Your task to perform on an android device: What's the weather going to be tomorrow? Image 0: 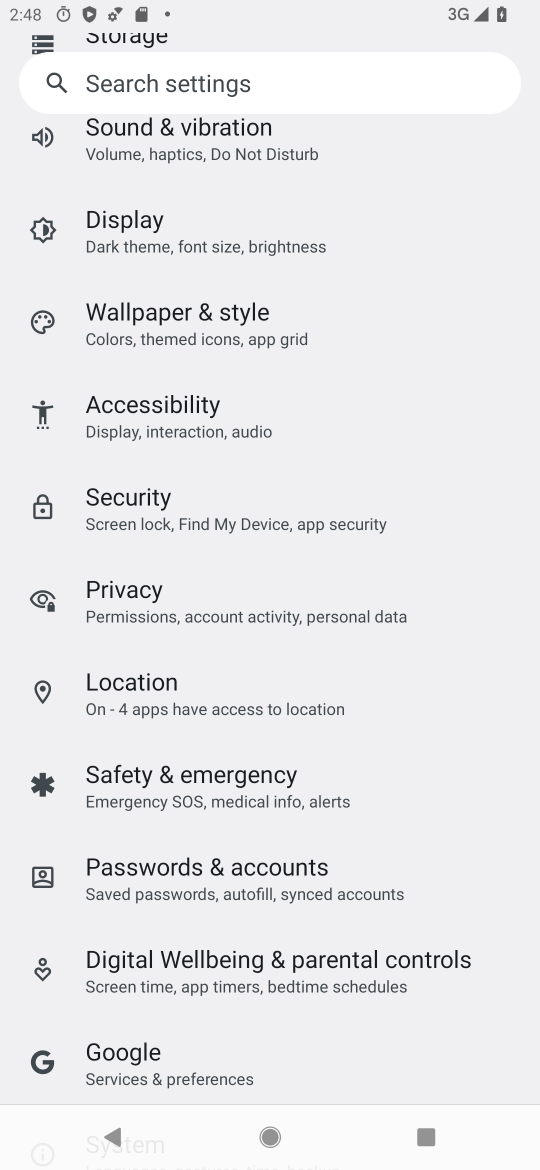
Step 0: press home button
Your task to perform on an android device: What's the weather going to be tomorrow? Image 1: 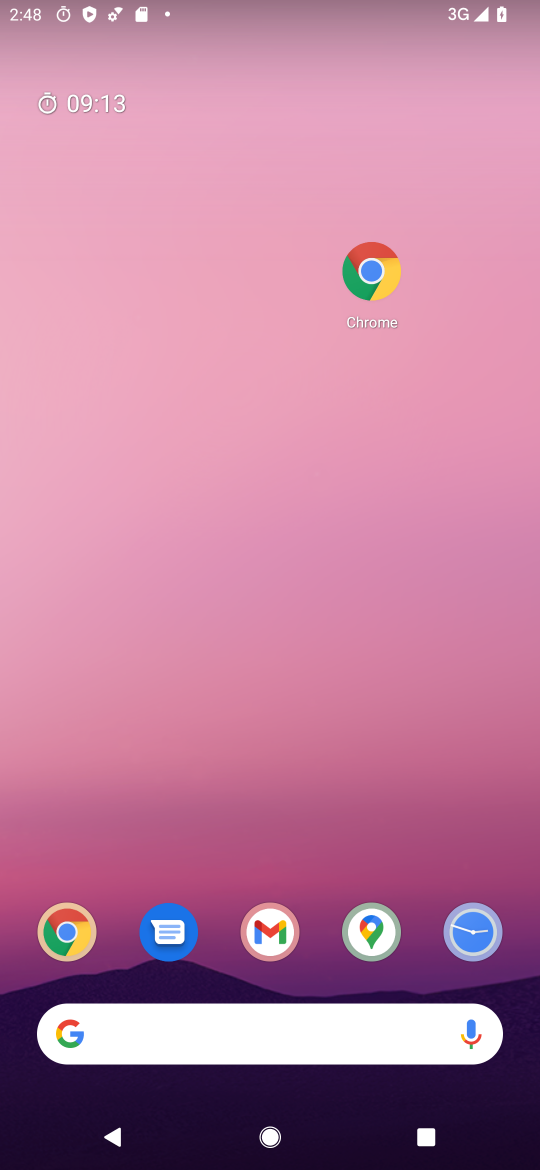
Step 1: drag from (325, 935) to (286, 28)
Your task to perform on an android device: What's the weather going to be tomorrow? Image 2: 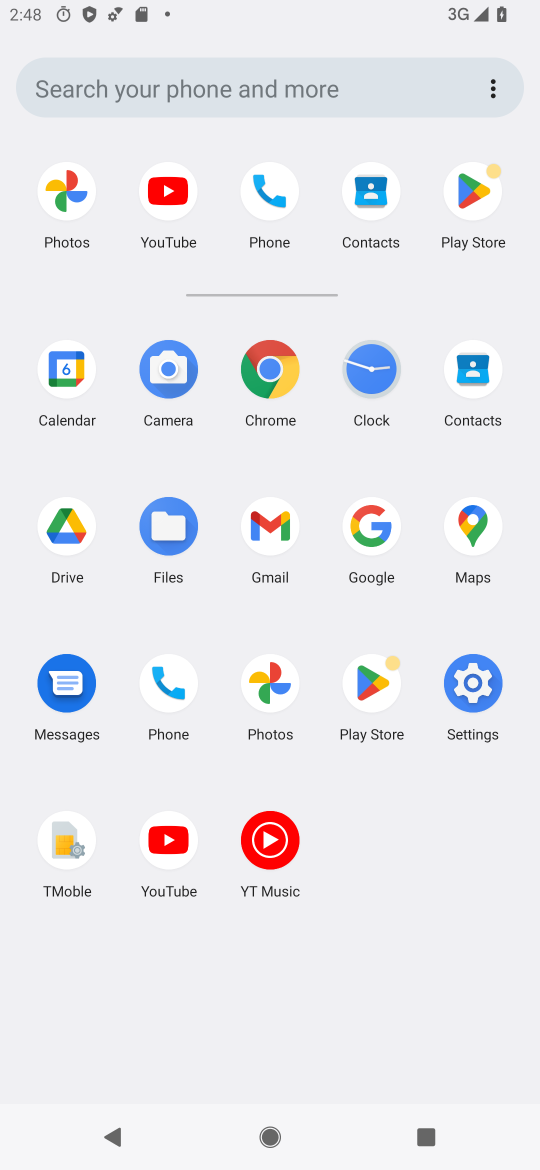
Step 2: click (274, 382)
Your task to perform on an android device: What's the weather going to be tomorrow? Image 3: 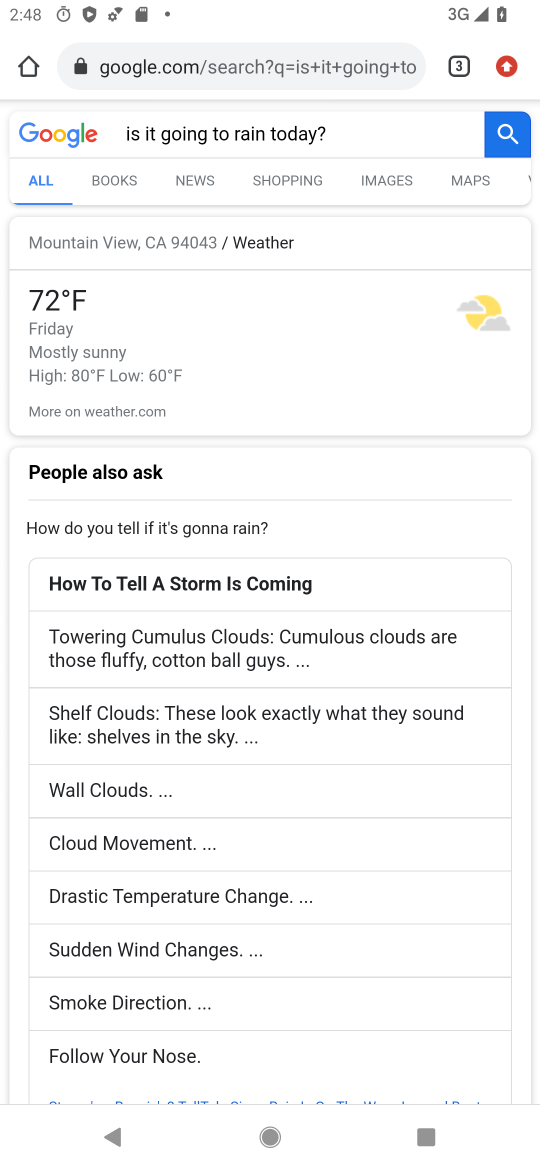
Step 3: click (168, 64)
Your task to perform on an android device: What's the weather going to be tomorrow? Image 4: 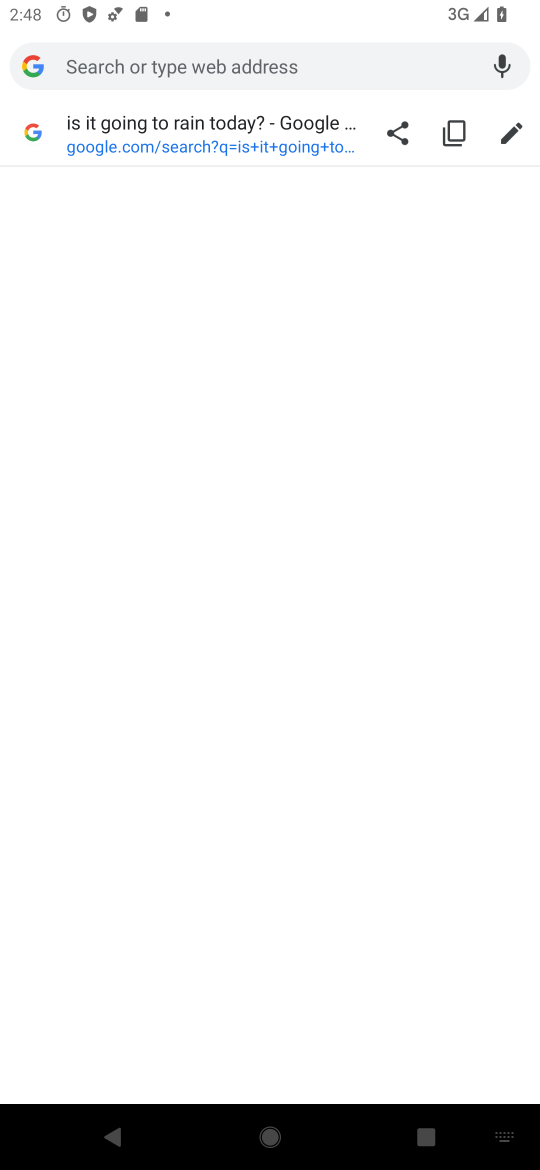
Step 4: type "What's the weather going to be tomorrow?"
Your task to perform on an android device: What's the weather going to be tomorrow? Image 5: 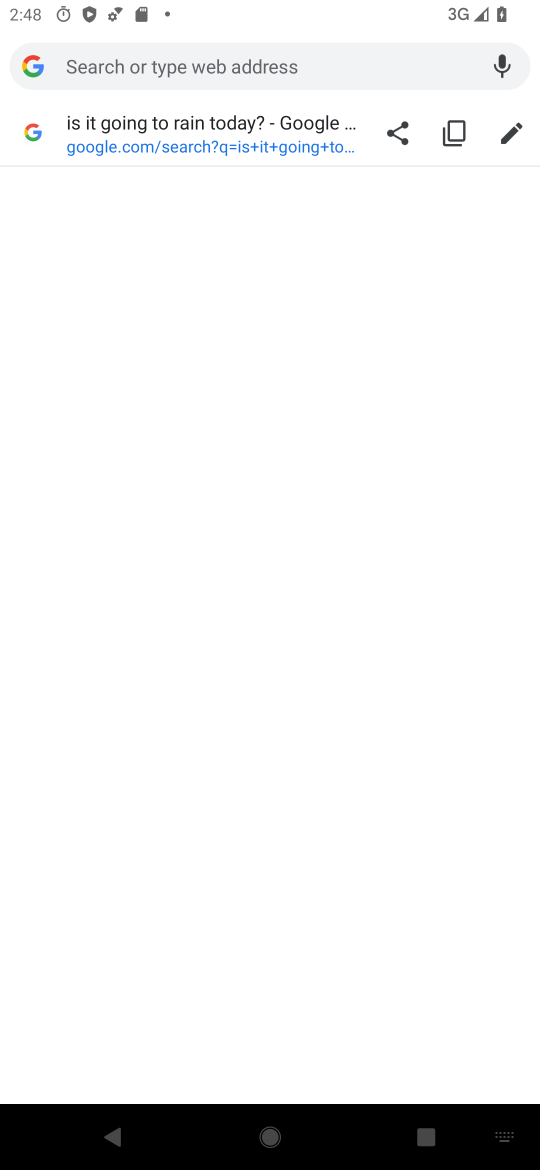
Step 5: click (140, 70)
Your task to perform on an android device: What's the weather going to be tomorrow? Image 6: 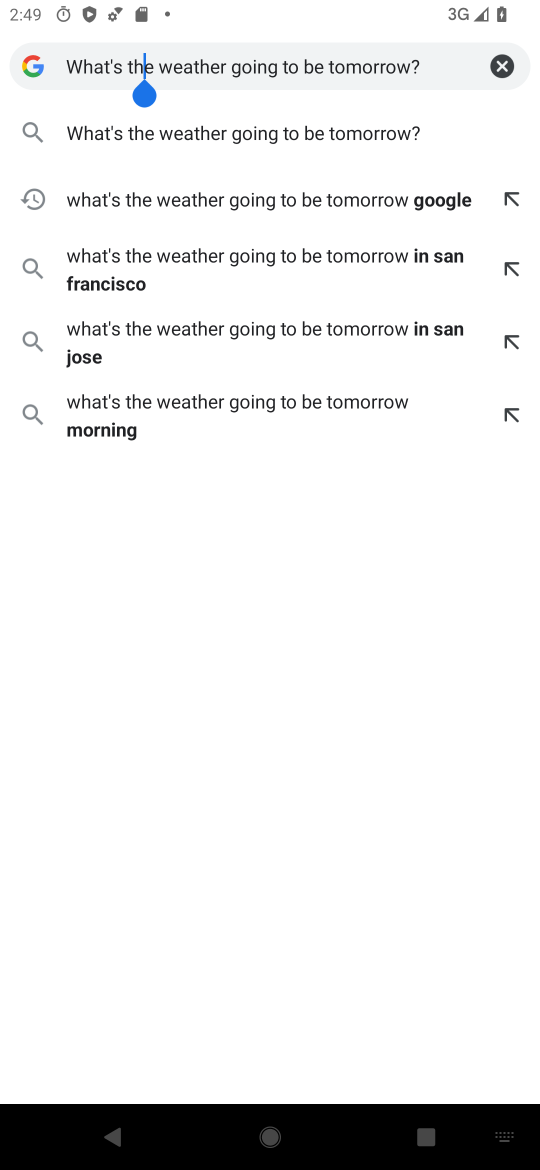
Step 6: click (143, 70)
Your task to perform on an android device: What's the weather going to be tomorrow? Image 7: 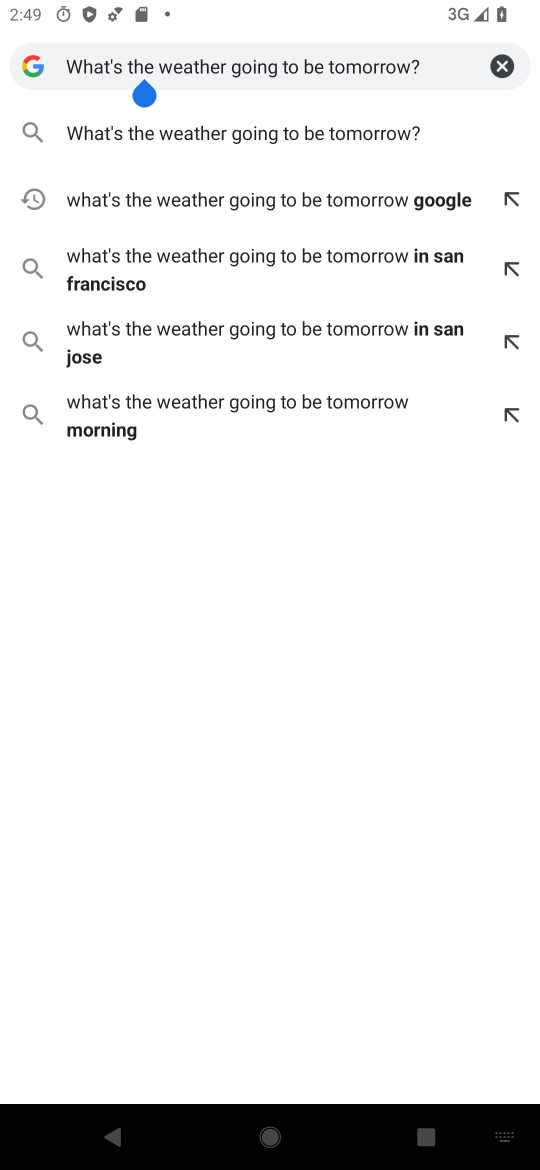
Step 7: click (178, 135)
Your task to perform on an android device: What's the weather going to be tomorrow? Image 8: 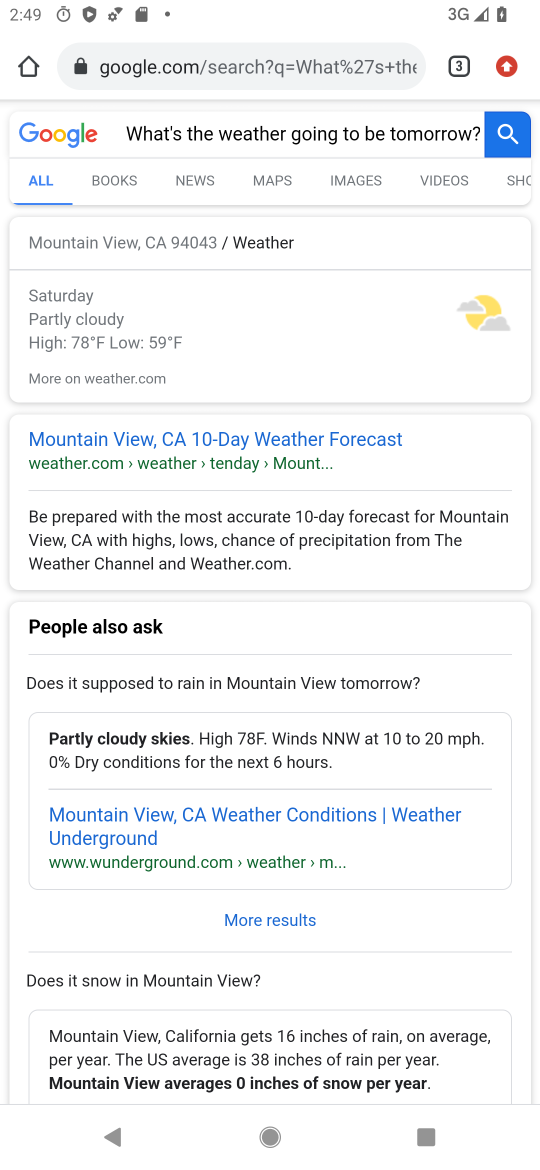
Step 8: task complete